Your task to perform on an android device: set the stopwatch Image 0: 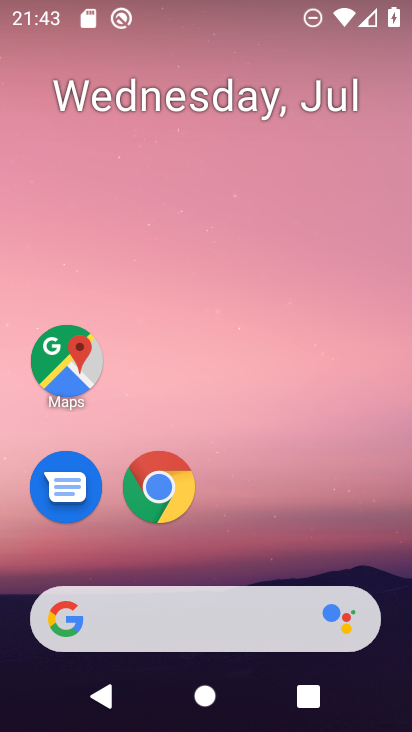
Step 0: drag from (355, 509) to (376, 131)
Your task to perform on an android device: set the stopwatch Image 1: 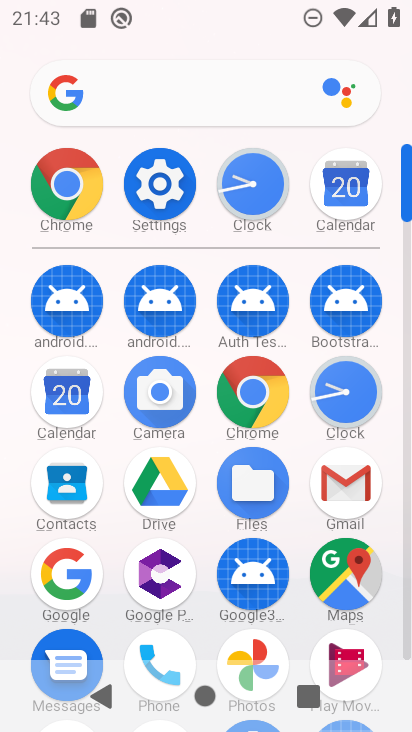
Step 1: click (367, 393)
Your task to perform on an android device: set the stopwatch Image 2: 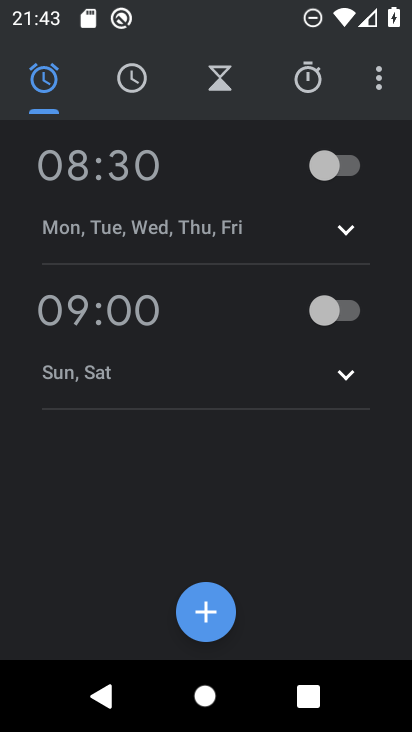
Step 2: click (313, 90)
Your task to perform on an android device: set the stopwatch Image 3: 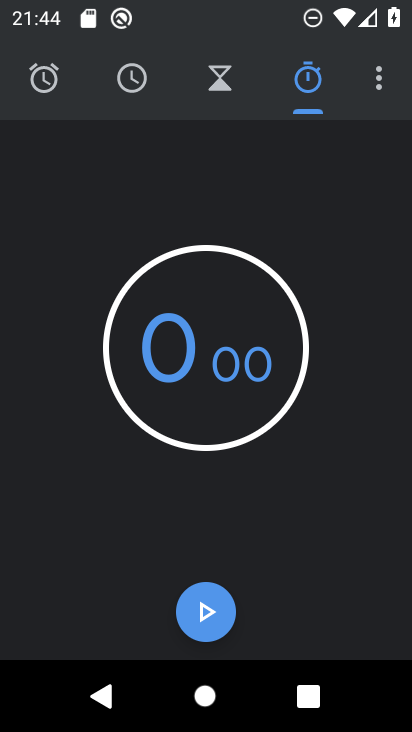
Step 3: click (203, 619)
Your task to perform on an android device: set the stopwatch Image 4: 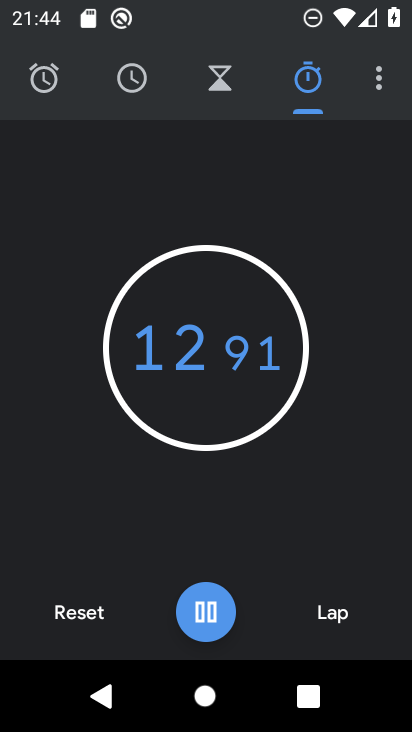
Step 4: task complete